Your task to perform on an android device: Open the calendar and show me this week's events Image 0: 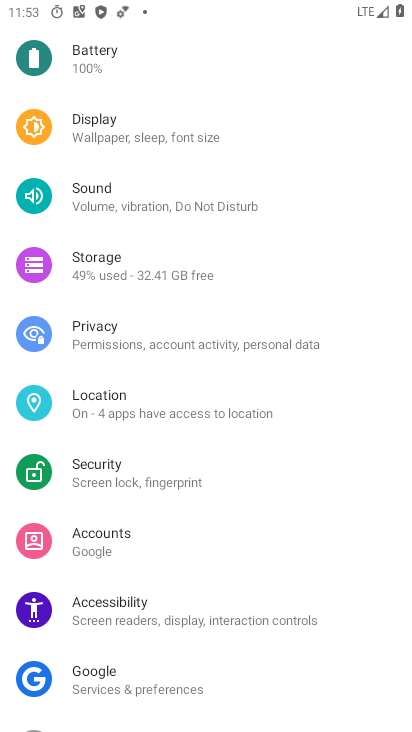
Step 0: press home button
Your task to perform on an android device: Open the calendar and show me this week's events Image 1: 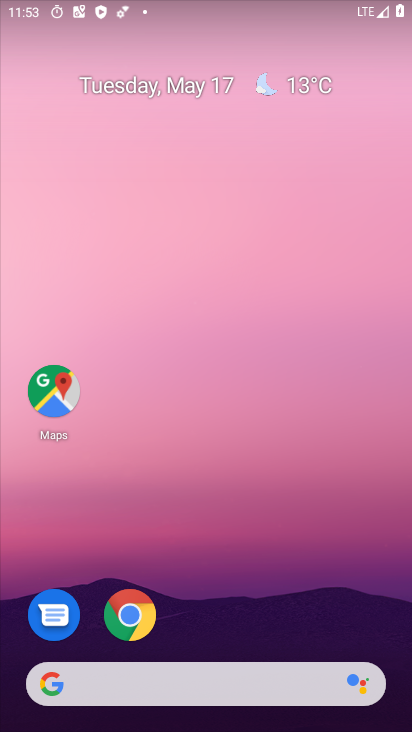
Step 1: drag from (122, 684) to (205, 223)
Your task to perform on an android device: Open the calendar and show me this week's events Image 2: 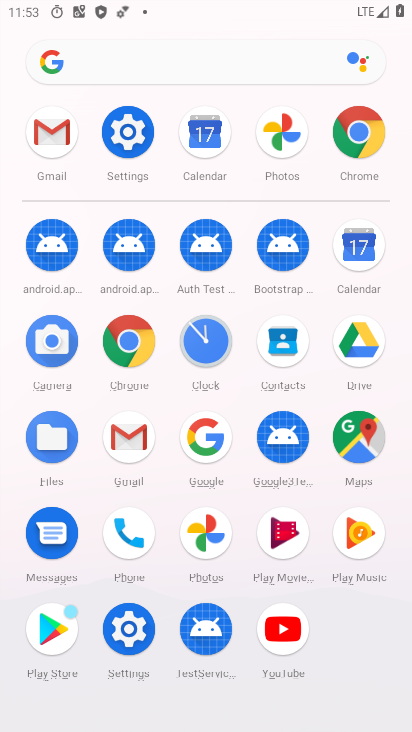
Step 2: click (355, 253)
Your task to perform on an android device: Open the calendar and show me this week's events Image 3: 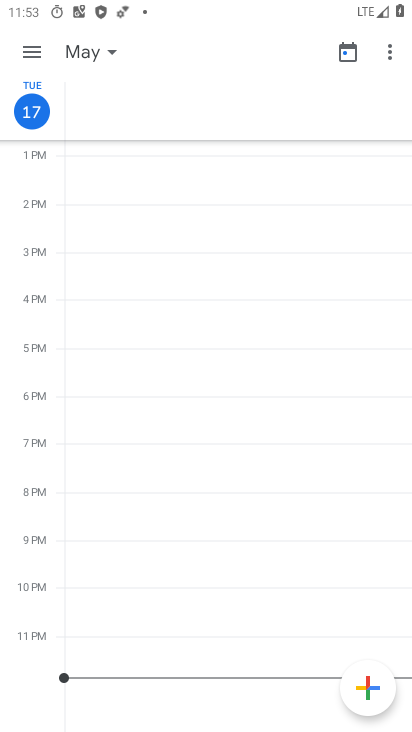
Step 3: click (83, 54)
Your task to perform on an android device: Open the calendar and show me this week's events Image 4: 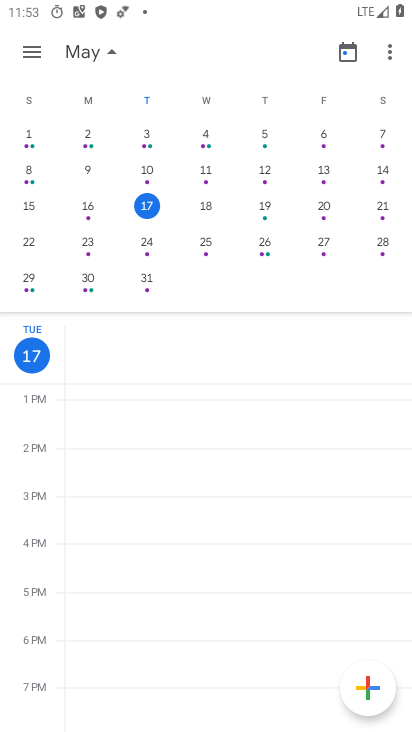
Step 4: click (28, 239)
Your task to perform on an android device: Open the calendar and show me this week's events Image 5: 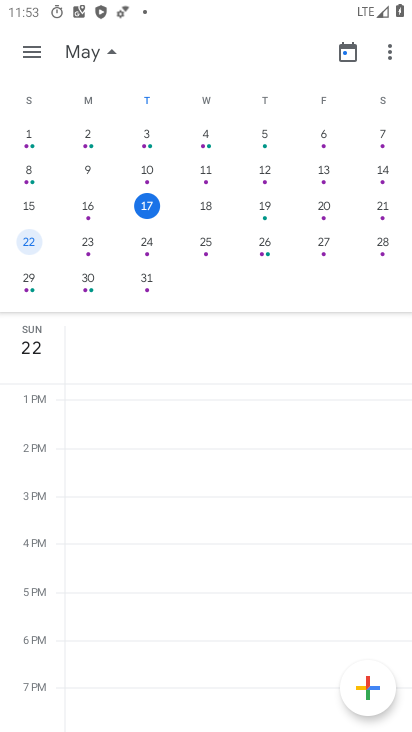
Step 5: click (34, 53)
Your task to perform on an android device: Open the calendar and show me this week's events Image 6: 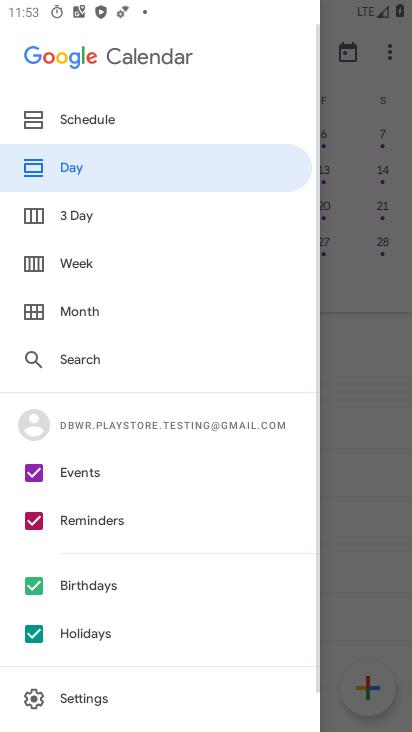
Step 6: click (87, 259)
Your task to perform on an android device: Open the calendar and show me this week's events Image 7: 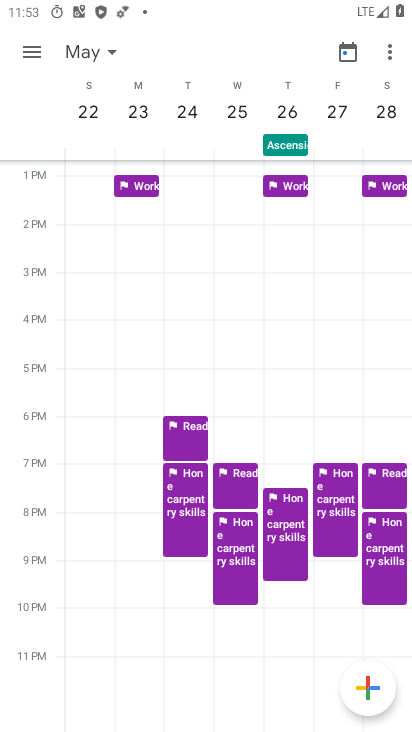
Step 7: task complete